Your task to perform on an android device: Do I have any events today? Image 0: 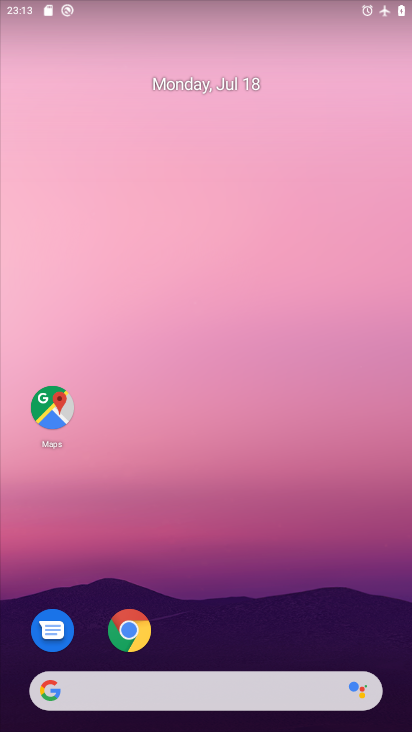
Step 0: drag from (285, 658) to (275, 245)
Your task to perform on an android device: Do I have any events today? Image 1: 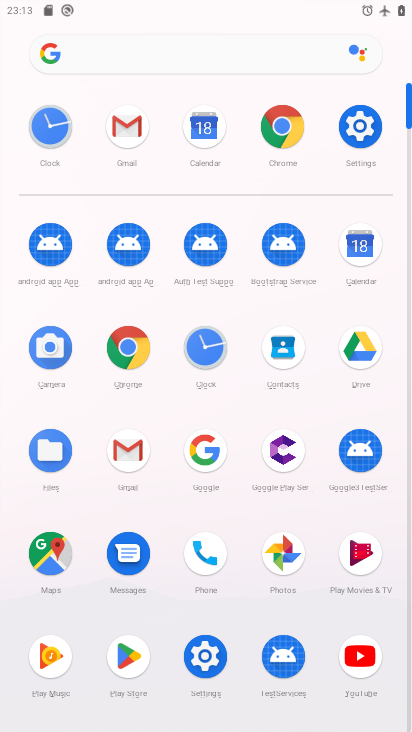
Step 1: click (215, 124)
Your task to perform on an android device: Do I have any events today? Image 2: 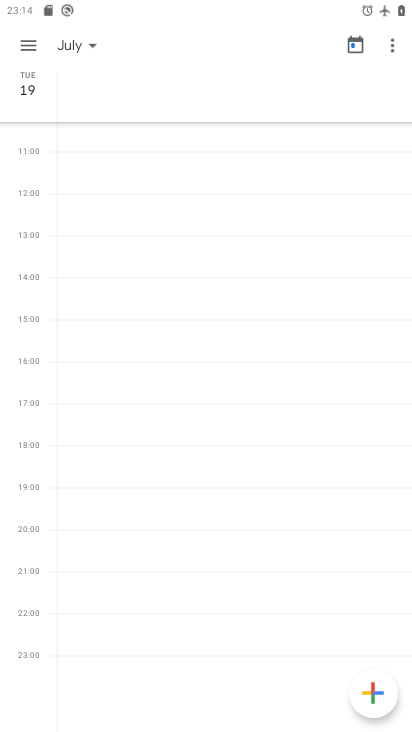
Step 2: task complete